Your task to perform on an android device: turn off wifi Image 0: 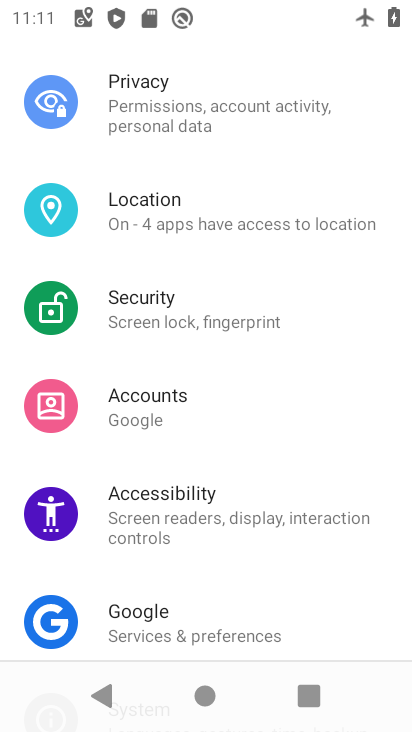
Step 0: drag from (193, 143) to (212, 482)
Your task to perform on an android device: turn off wifi Image 1: 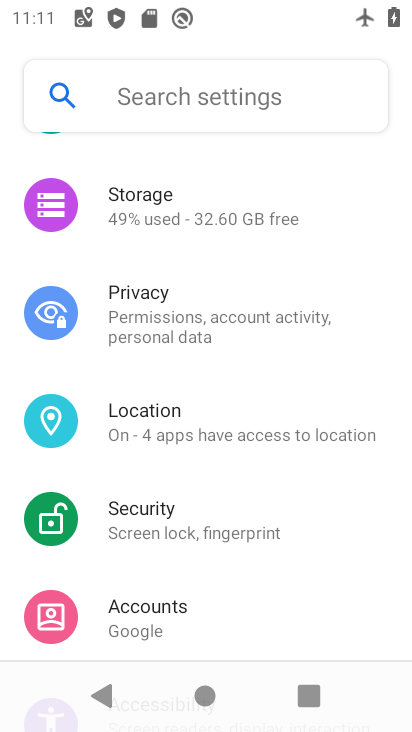
Step 1: drag from (154, 184) to (221, 688)
Your task to perform on an android device: turn off wifi Image 2: 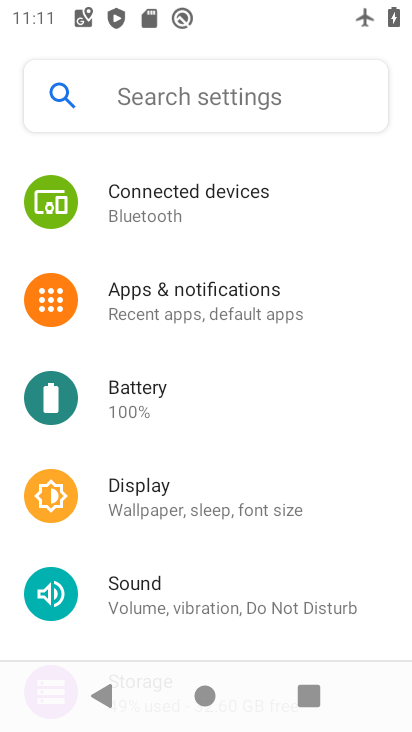
Step 2: click (158, 242)
Your task to perform on an android device: turn off wifi Image 3: 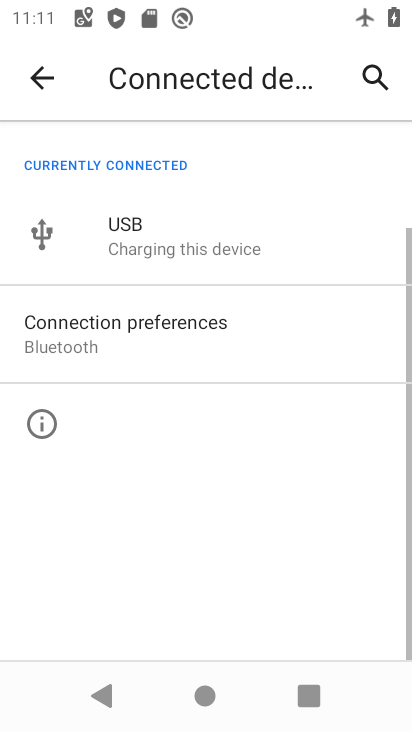
Step 3: click (32, 86)
Your task to perform on an android device: turn off wifi Image 4: 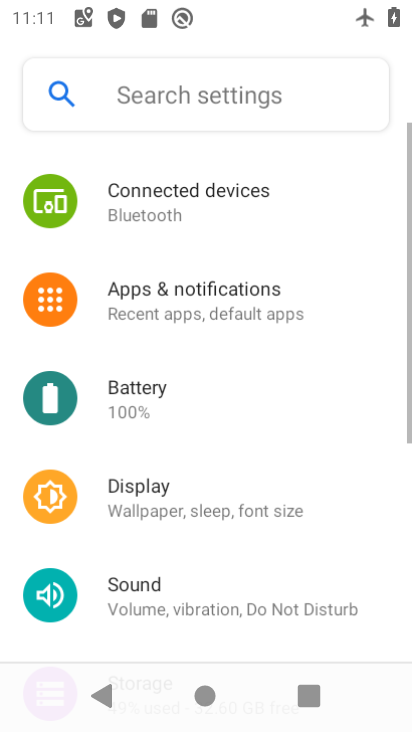
Step 4: drag from (166, 225) to (162, 655)
Your task to perform on an android device: turn off wifi Image 5: 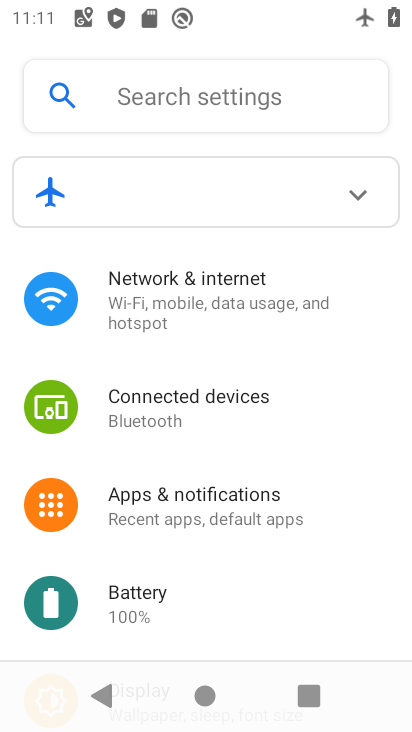
Step 5: click (141, 290)
Your task to perform on an android device: turn off wifi Image 6: 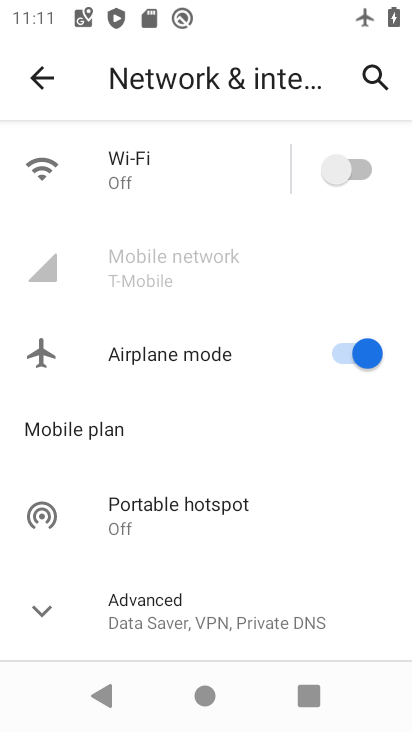
Step 6: task complete